Your task to perform on an android device: Is it going to rain today? Image 0: 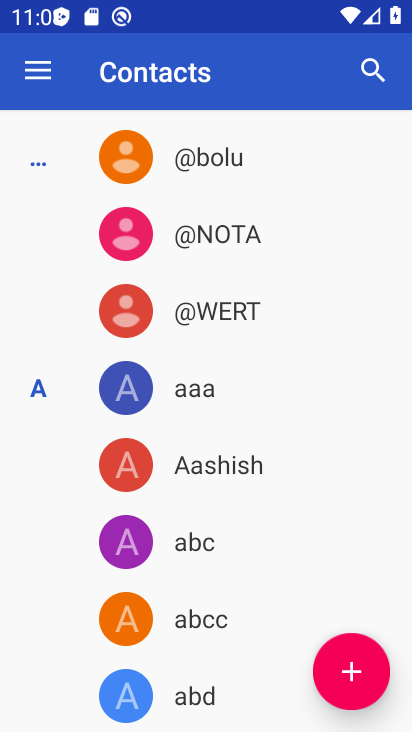
Step 0: press home button
Your task to perform on an android device: Is it going to rain today? Image 1: 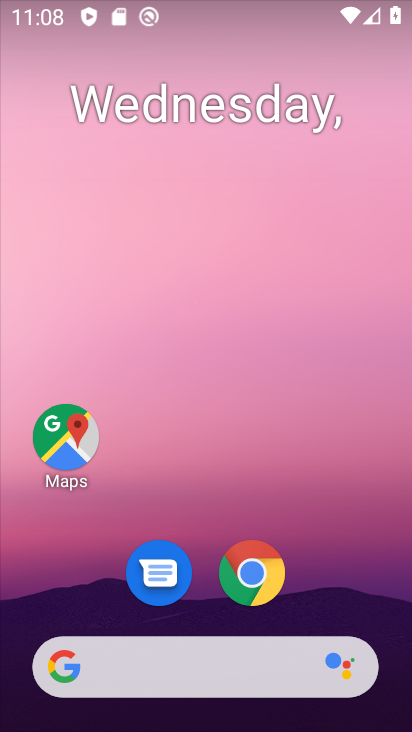
Step 1: click (224, 658)
Your task to perform on an android device: Is it going to rain today? Image 2: 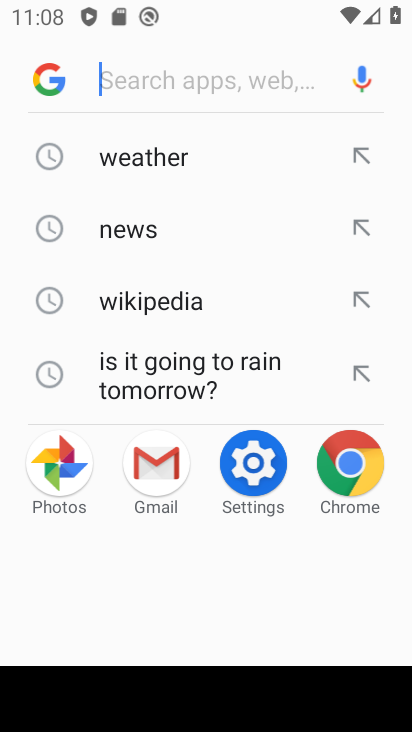
Step 2: click (164, 166)
Your task to perform on an android device: Is it going to rain today? Image 3: 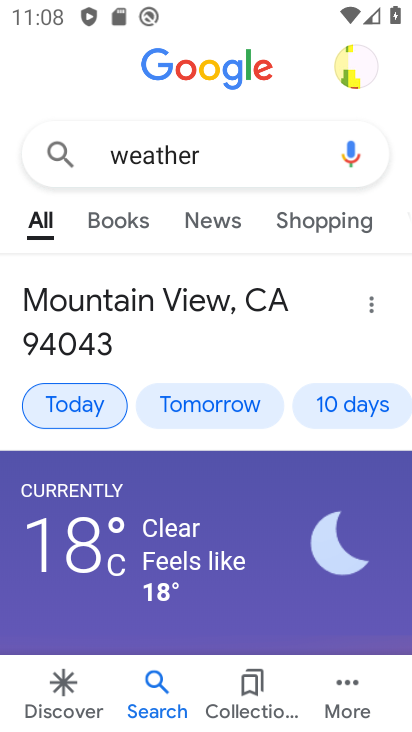
Step 3: task complete